Your task to perform on an android device: Go to accessibility settings Image 0: 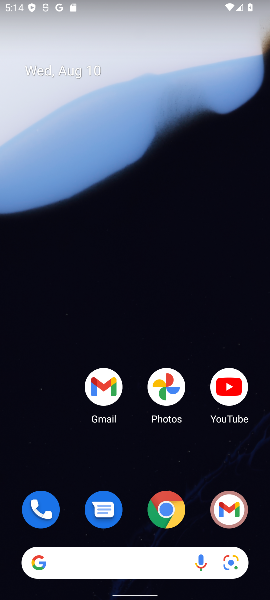
Step 0: drag from (133, 456) to (250, 54)
Your task to perform on an android device: Go to accessibility settings Image 1: 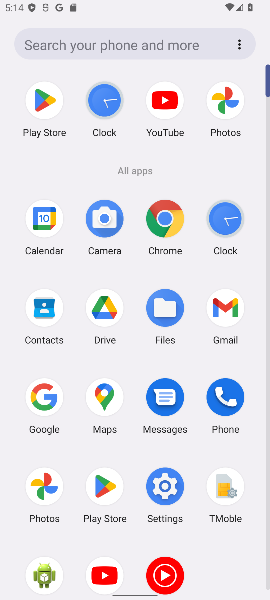
Step 1: click (163, 488)
Your task to perform on an android device: Go to accessibility settings Image 2: 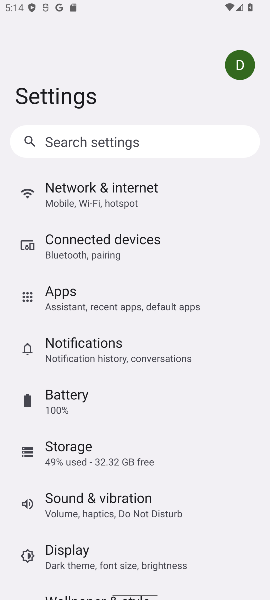
Step 2: drag from (195, 507) to (244, 194)
Your task to perform on an android device: Go to accessibility settings Image 3: 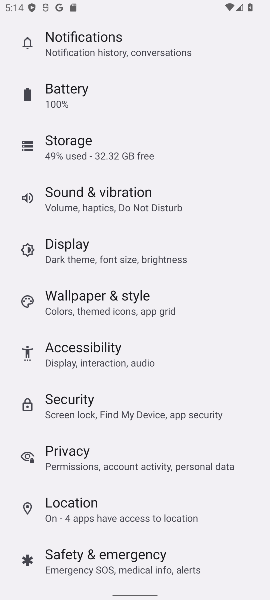
Step 3: click (99, 348)
Your task to perform on an android device: Go to accessibility settings Image 4: 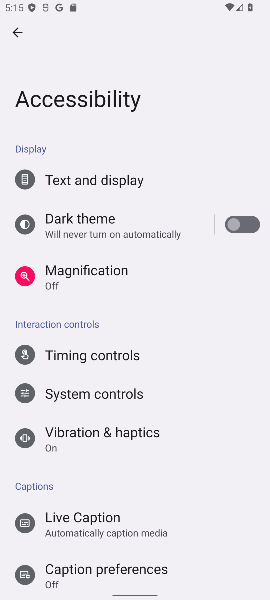
Step 4: task complete